Your task to perform on an android device: Open Chrome and go to settings Image 0: 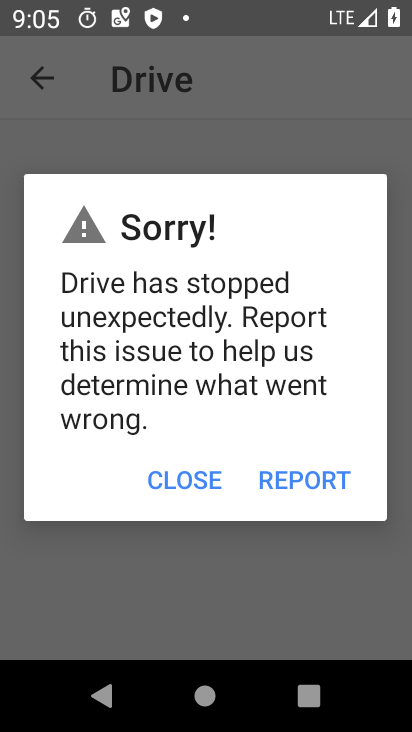
Step 0: press home button
Your task to perform on an android device: Open Chrome and go to settings Image 1: 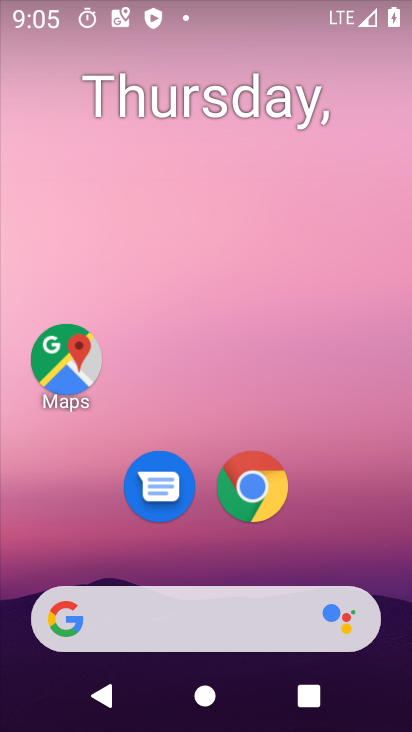
Step 1: click (255, 491)
Your task to perform on an android device: Open Chrome and go to settings Image 2: 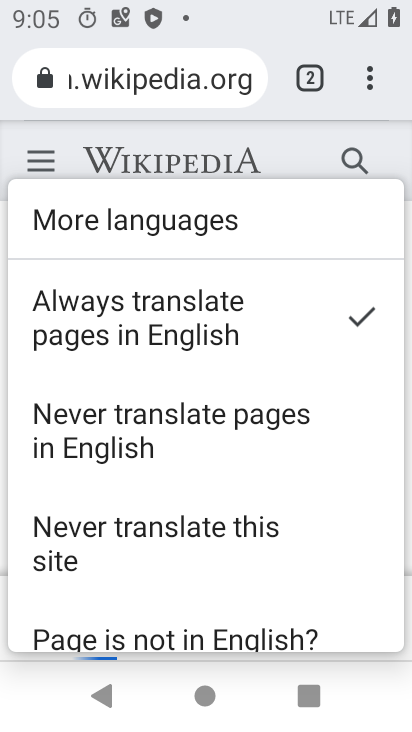
Step 2: click (365, 88)
Your task to perform on an android device: Open Chrome and go to settings Image 3: 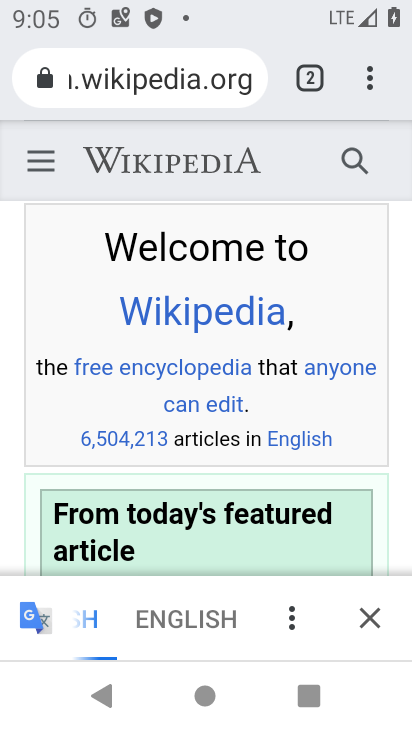
Step 3: click (365, 88)
Your task to perform on an android device: Open Chrome and go to settings Image 4: 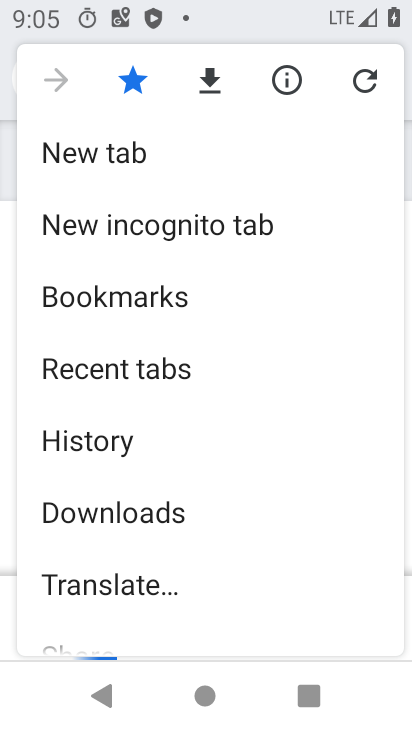
Step 4: drag from (253, 389) to (277, 76)
Your task to perform on an android device: Open Chrome and go to settings Image 5: 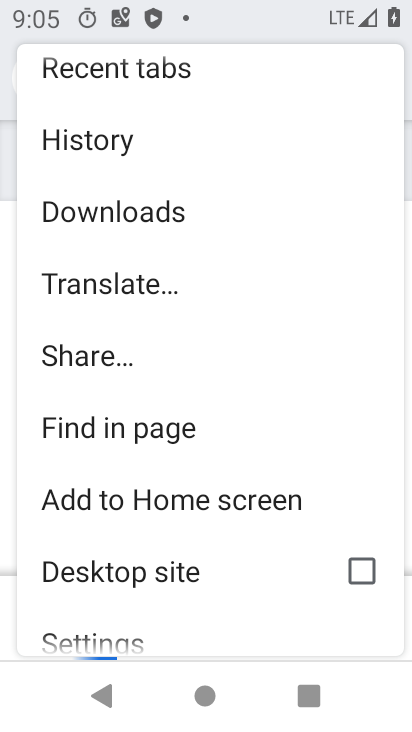
Step 5: drag from (116, 622) to (135, 429)
Your task to perform on an android device: Open Chrome and go to settings Image 6: 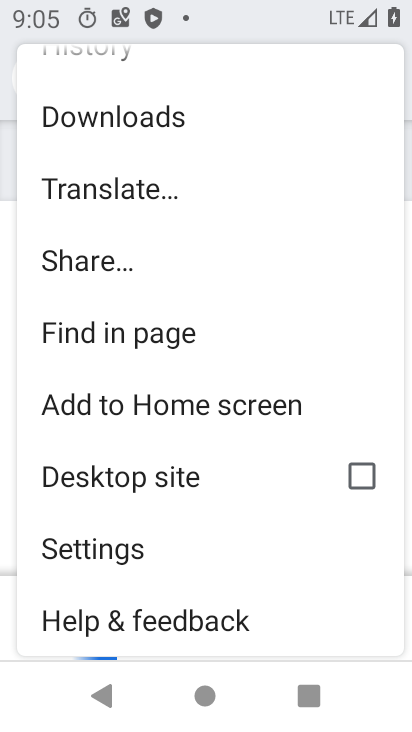
Step 6: click (136, 549)
Your task to perform on an android device: Open Chrome and go to settings Image 7: 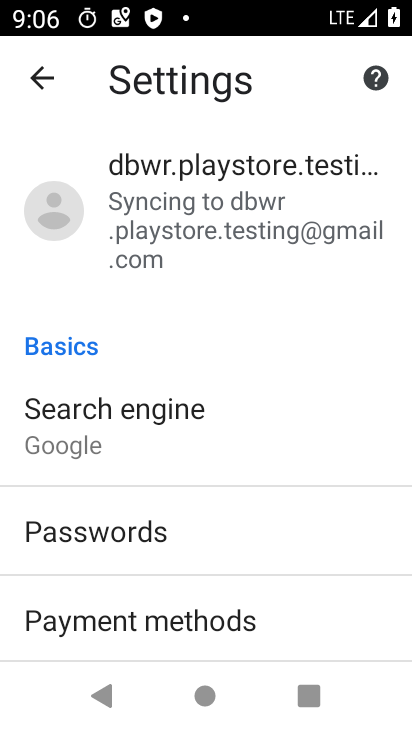
Step 7: task complete